Your task to perform on an android device: turn pop-ups on in chrome Image 0: 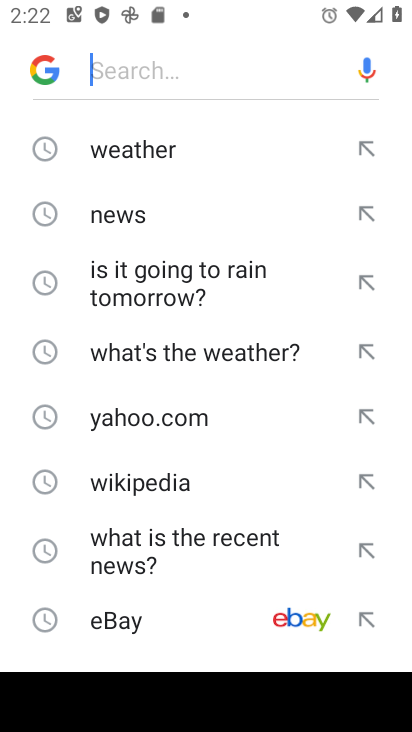
Step 0: drag from (190, 608) to (173, 371)
Your task to perform on an android device: turn pop-ups on in chrome Image 1: 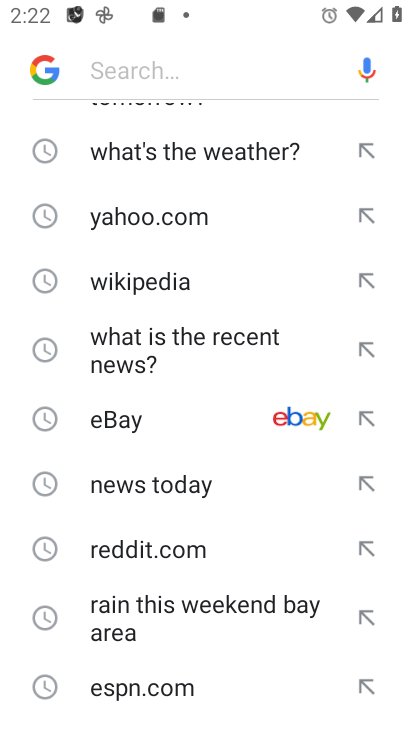
Step 1: press home button
Your task to perform on an android device: turn pop-ups on in chrome Image 2: 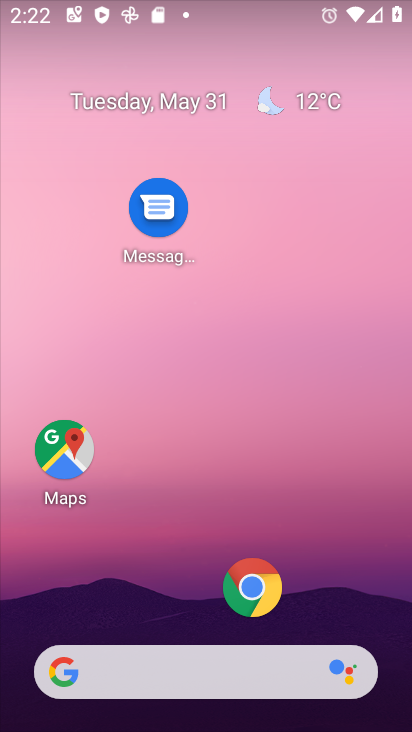
Step 2: drag from (167, 621) to (113, 374)
Your task to perform on an android device: turn pop-ups on in chrome Image 3: 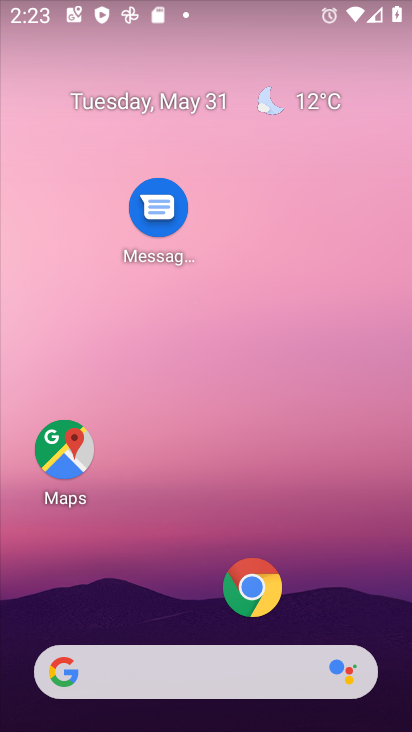
Step 3: drag from (196, 631) to (142, 136)
Your task to perform on an android device: turn pop-ups on in chrome Image 4: 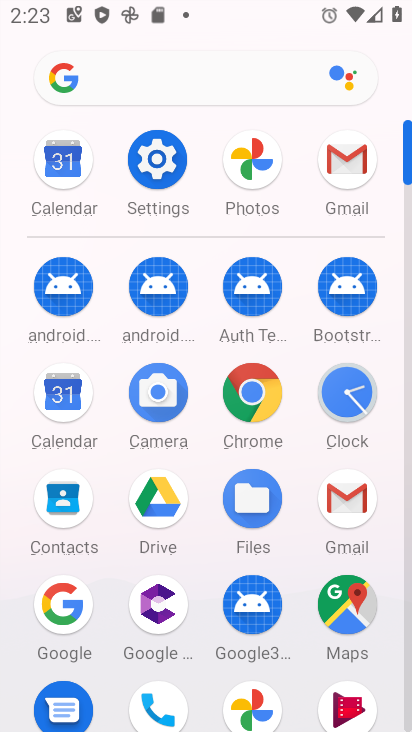
Step 4: click (244, 384)
Your task to perform on an android device: turn pop-ups on in chrome Image 5: 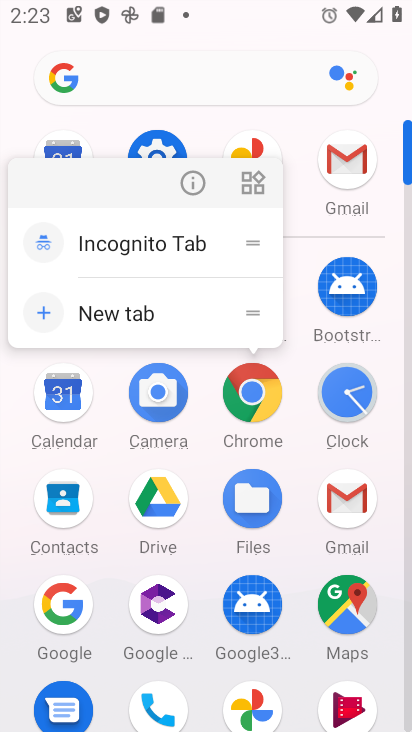
Step 5: click (201, 182)
Your task to perform on an android device: turn pop-ups on in chrome Image 6: 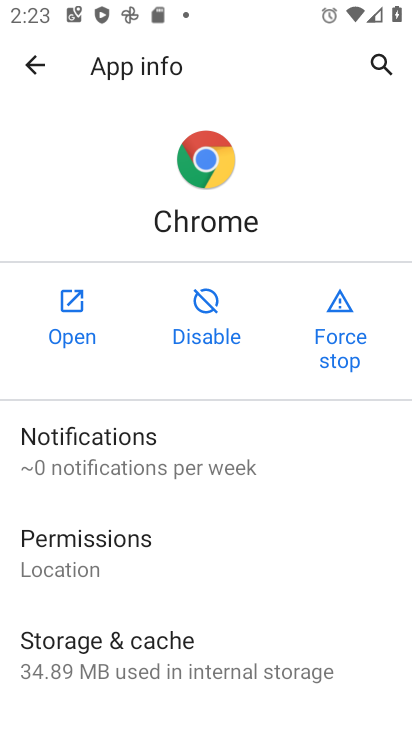
Step 6: click (67, 296)
Your task to perform on an android device: turn pop-ups on in chrome Image 7: 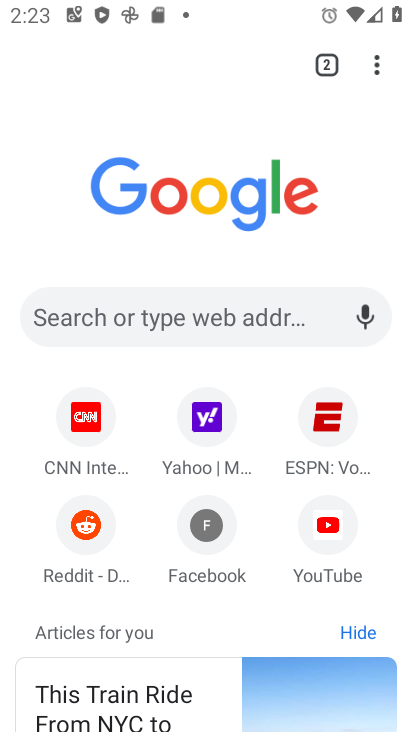
Step 7: drag from (150, 620) to (144, 314)
Your task to perform on an android device: turn pop-ups on in chrome Image 8: 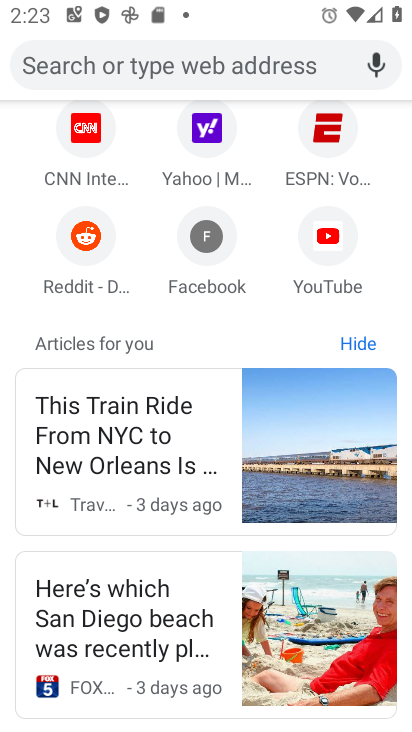
Step 8: drag from (253, 154) to (353, 407)
Your task to perform on an android device: turn pop-ups on in chrome Image 9: 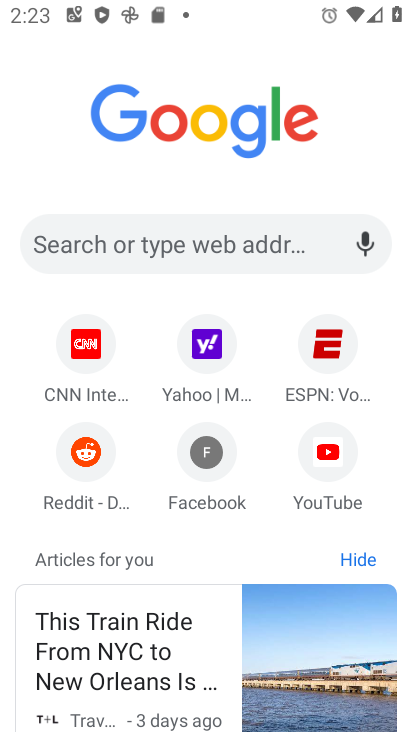
Step 9: drag from (336, 192) to (373, 418)
Your task to perform on an android device: turn pop-ups on in chrome Image 10: 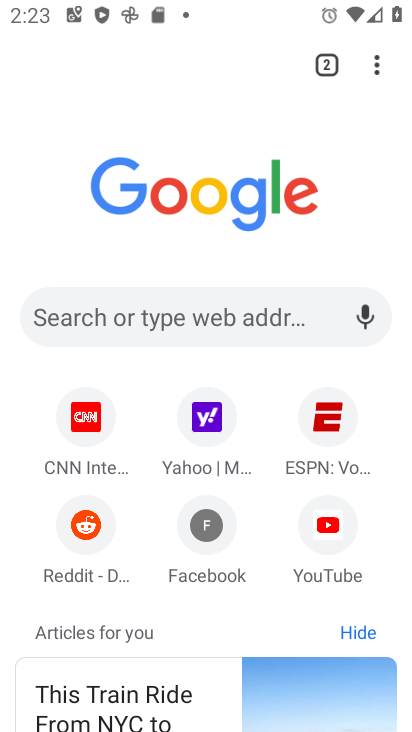
Step 10: click (379, 47)
Your task to perform on an android device: turn pop-ups on in chrome Image 11: 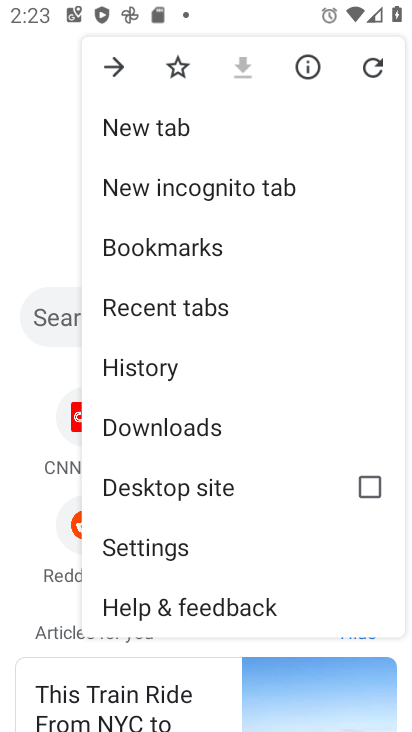
Step 11: click (178, 543)
Your task to perform on an android device: turn pop-ups on in chrome Image 12: 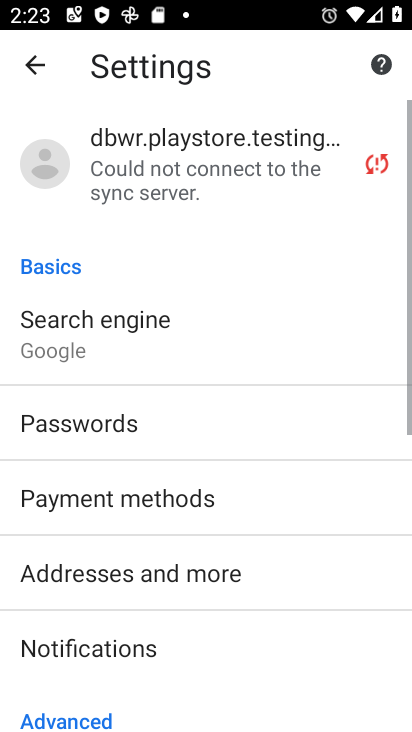
Step 12: drag from (174, 537) to (126, 318)
Your task to perform on an android device: turn pop-ups on in chrome Image 13: 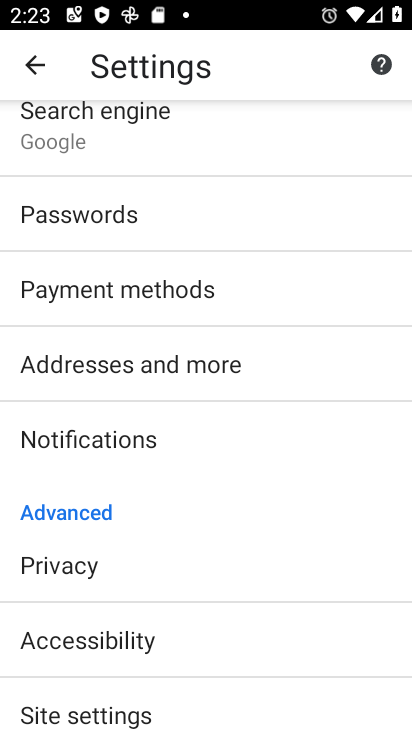
Step 13: drag from (206, 609) to (173, 463)
Your task to perform on an android device: turn pop-ups on in chrome Image 14: 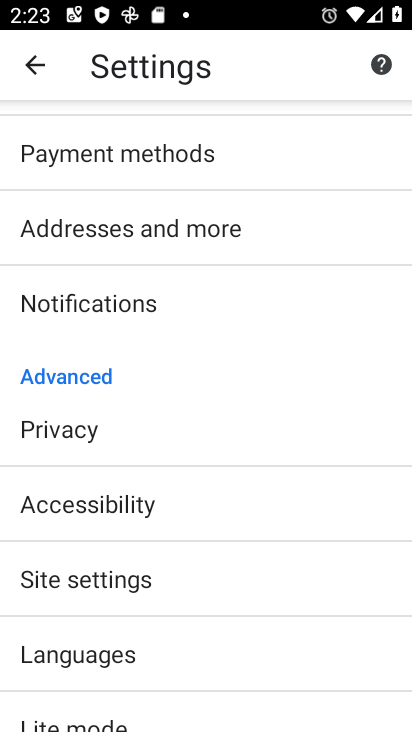
Step 14: click (203, 588)
Your task to perform on an android device: turn pop-ups on in chrome Image 15: 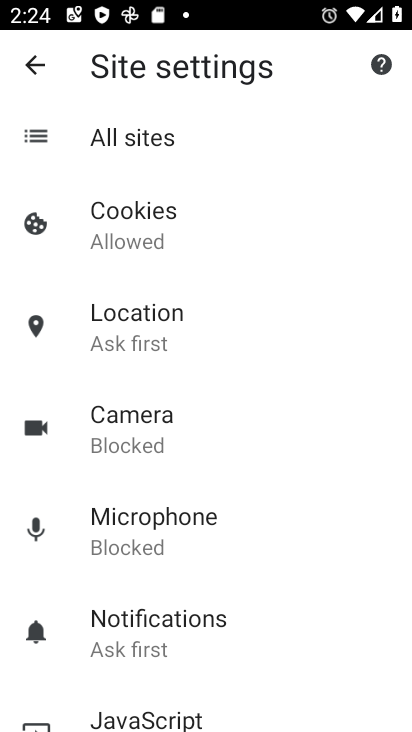
Step 15: drag from (166, 585) to (156, 267)
Your task to perform on an android device: turn pop-ups on in chrome Image 16: 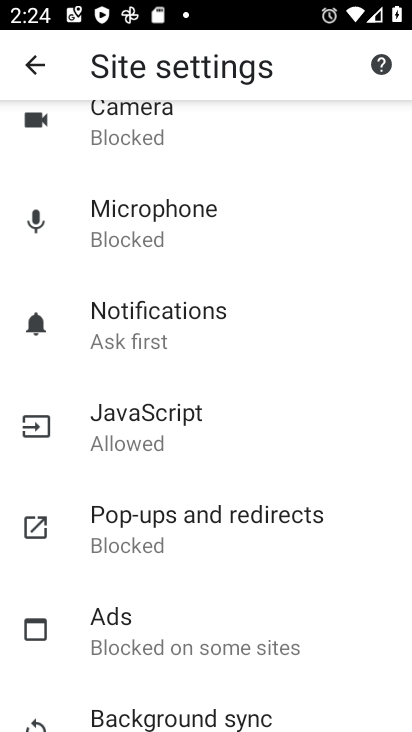
Step 16: click (147, 506)
Your task to perform on an android device: turn pop-ups on in chrome Image 17: 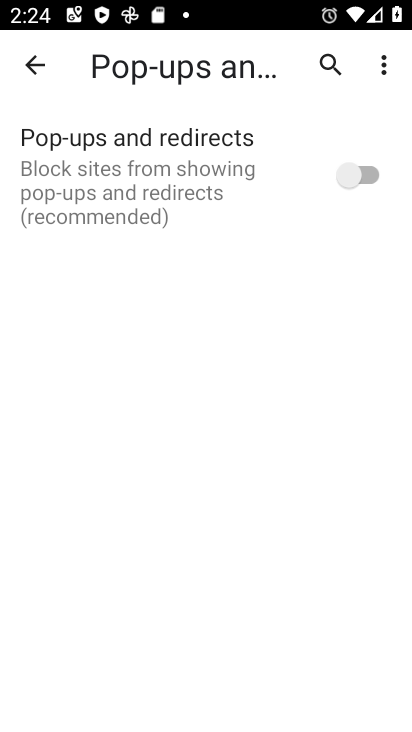
Step 17: click (325, 167)
Your task to perform on an android device: turn pop-ups on in chrome Image 18: 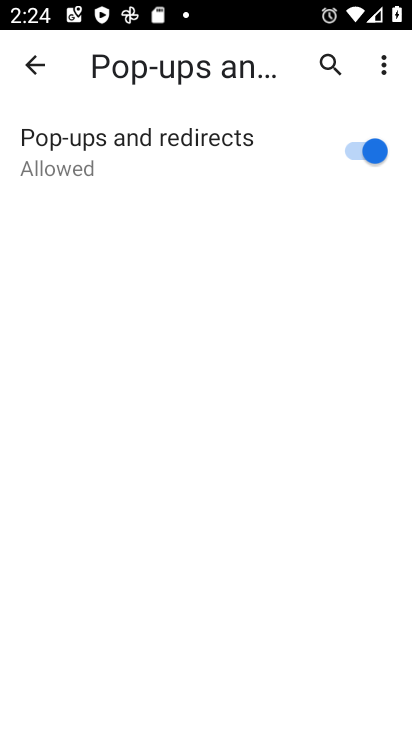
Step 18: task complete